Your task to perform on an android device: empty trash in google photos Image 0: 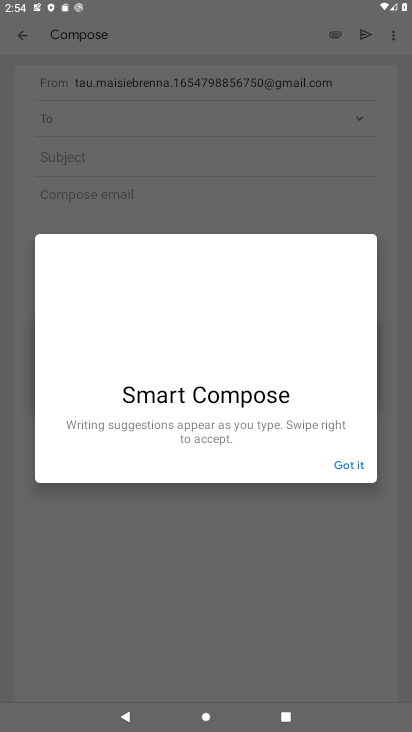
Step 0: press home button
Your task to perform on an android device: empty trash in google photos Image 1: 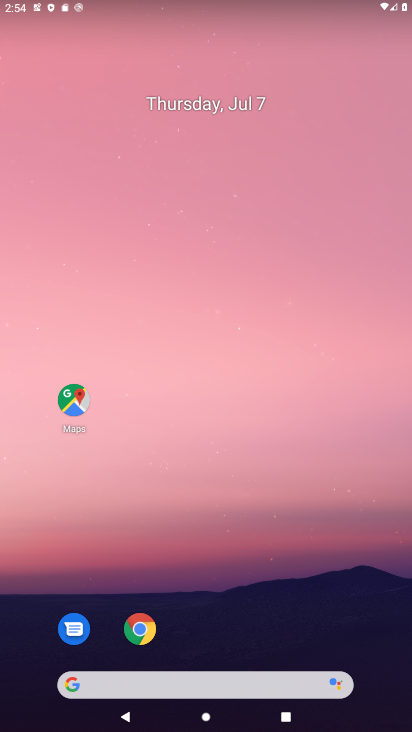
Step 1: click (302, 212)
Your task to perform on an android device: empty trash in google photos Image 2: 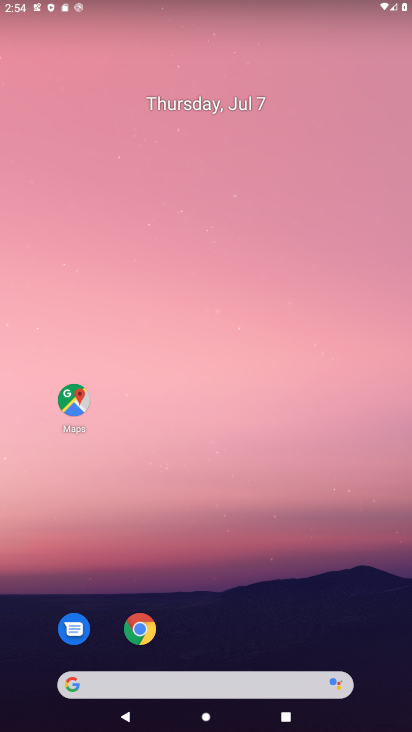
Step 2: drag from (213, 218) to (219, 159)
Your task to perform on an android device: empty trash in google photos Image 3: 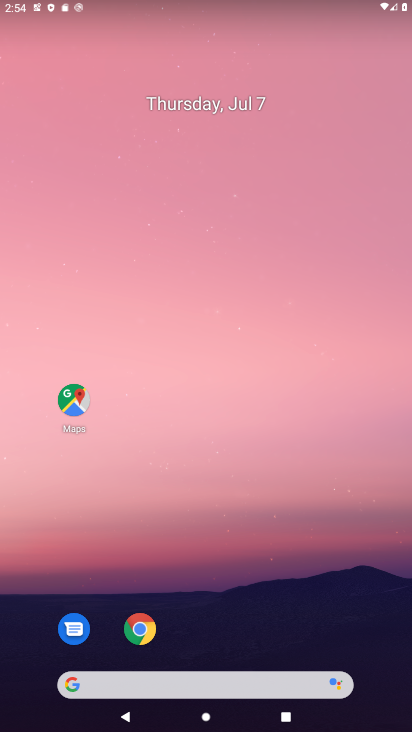
Step 3: drag from (182, 102) to (181, 66)
Your task to perform on an android device: empty trash in google photos Image 4: 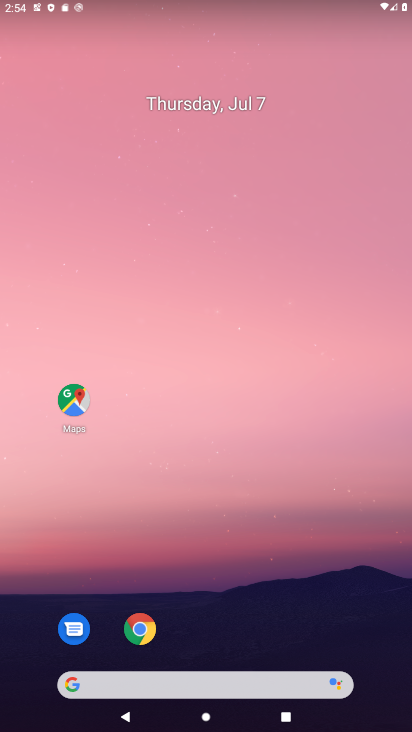
Step 4: drag from (218, 636) to (308, 84)
Your task to perform on an android device: empty trash in google photos Image 5: 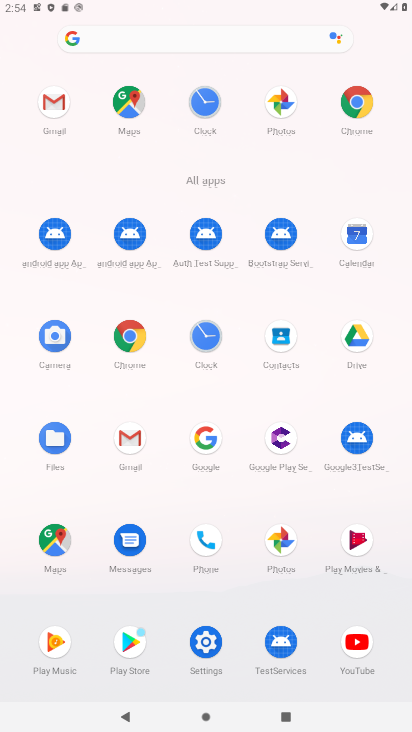
Step 5: click (286, 88)
Your task to perform on an android device: empty trash in google photos Image 6: 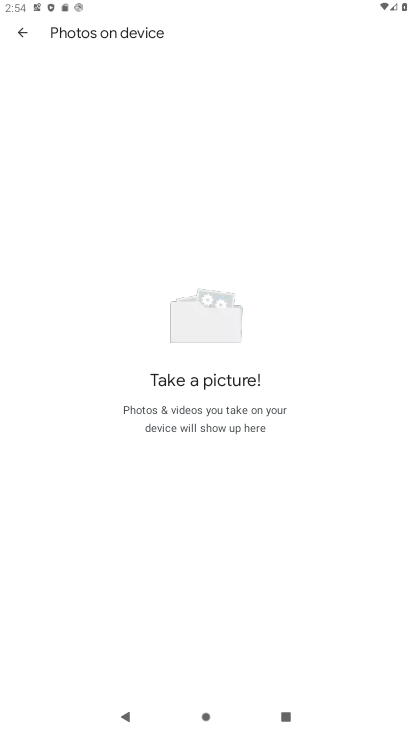
Step 6: click (29, 29)
Your task to perform on an android device: empty trash in google photos Image 7: 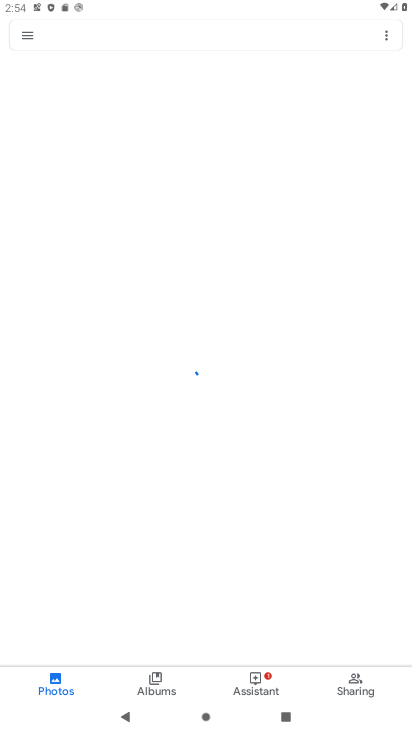
Step 7: click (28, 39)
Your task to perform on an android device: empty trash in google photos Image 8: 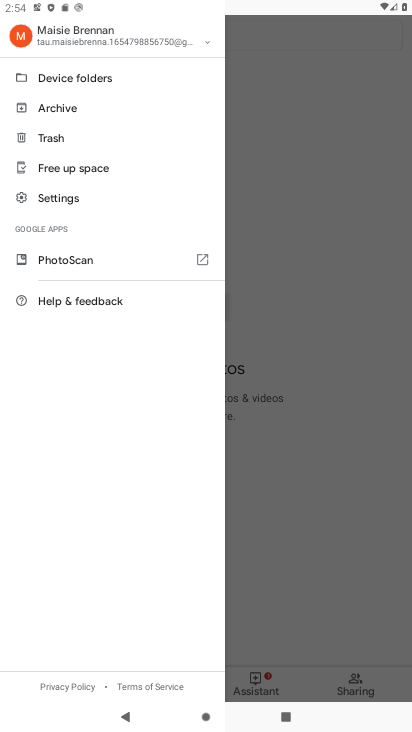
Step 8: click (28, 39)
Your task to perform on an android device: empty trash in google photos Image 9: 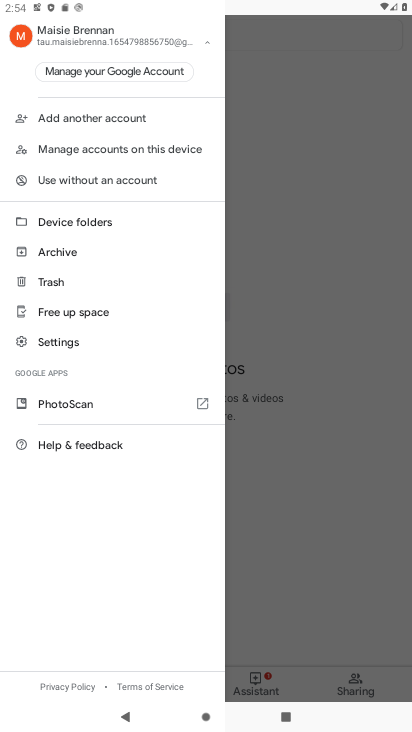
Step 9: click (65, 131)
Your task to perform on an android device: empty trash in google photos Image 10: 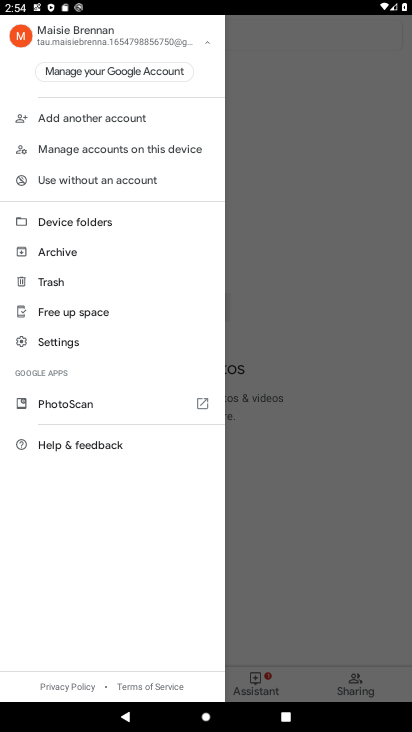
Step 10: click (57, 284)
Your task to perform on an android device: empty trash in google photos Image 11: 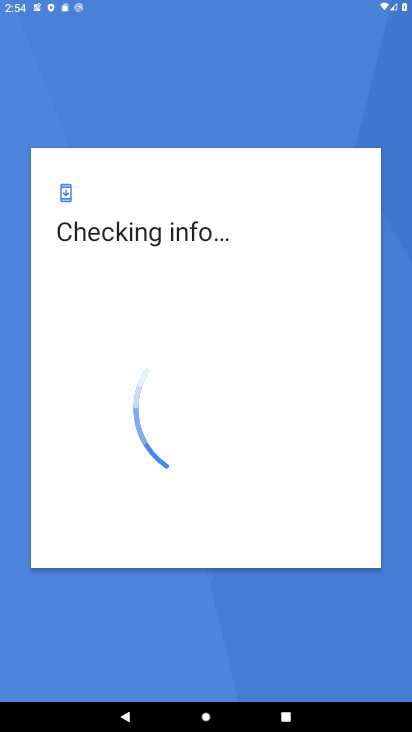
Step 11: task complete